Your task to perform on an android device: Go to privacy settings Image 0: 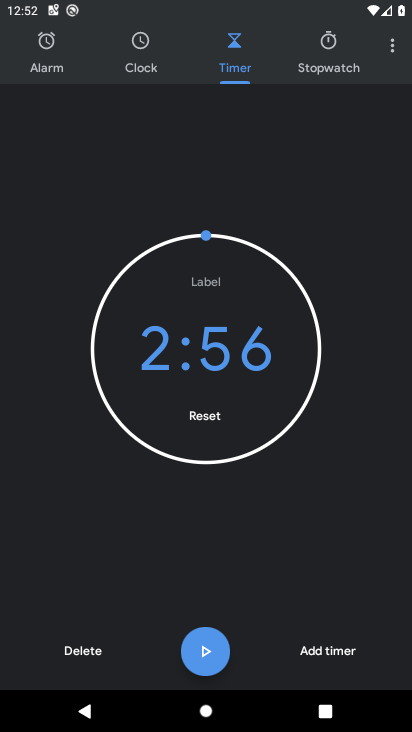
Step 0: click (384, 48)
Your task to perform on an android device: Go to privacy settings Image 1: 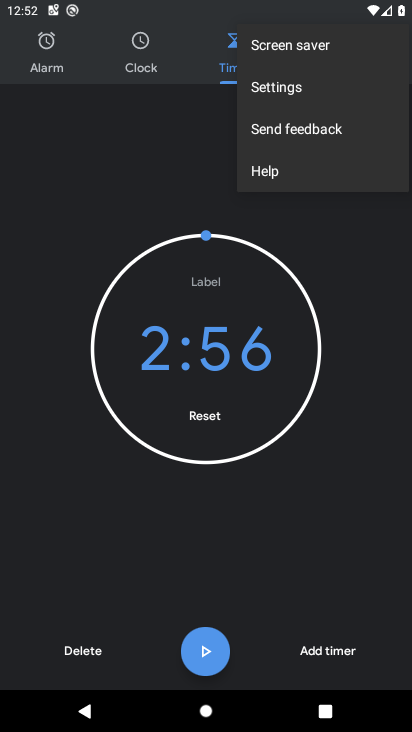
Step 1: press home button
Your task to perform on an android device: Go to privacy settings Image 2: 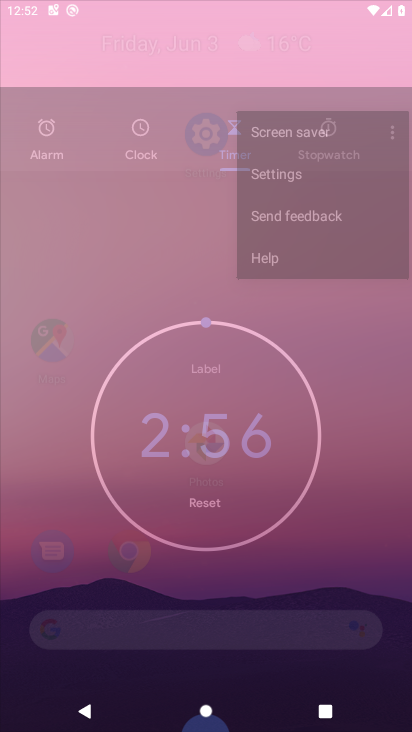
Step 2: drag from (27, 581) to (277, 61)
Your task to perform on an android device: Go to privacy settings Image 3: 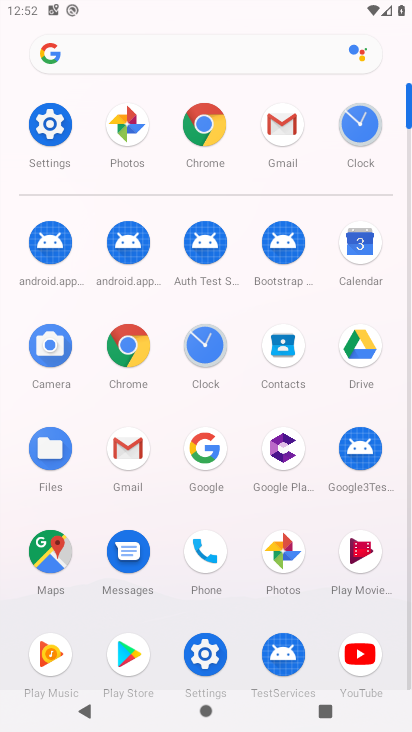
Step 3: click (191, 653)
Your task to perform on an android device: Go to privacy settings Image 4: 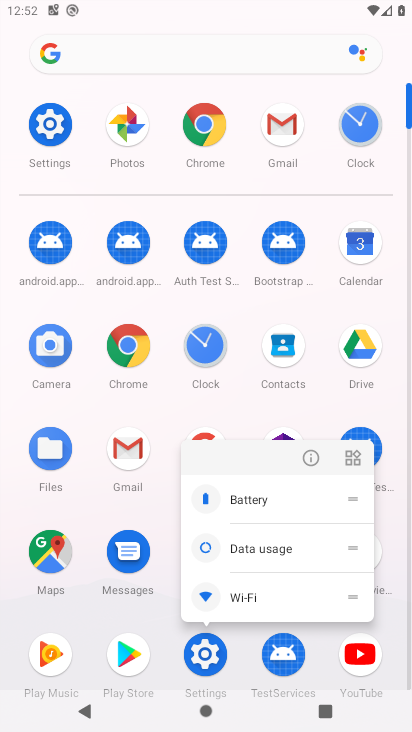
Step 4: click (313, 459)
Your task to perform on an android device: Go to privacy settings Image 5: 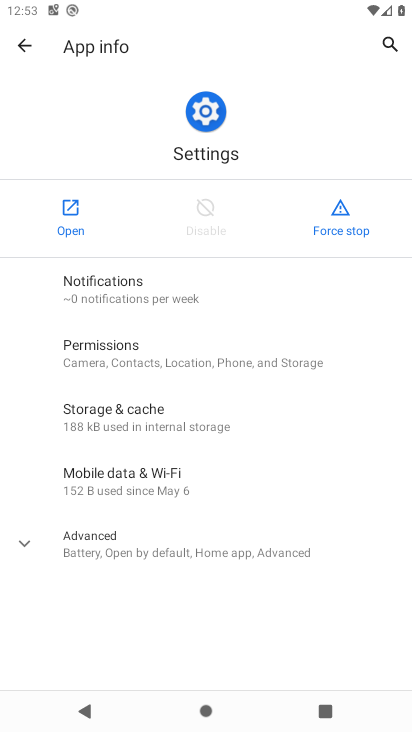
Step 5: click (83, 206)
Your task to perform on an android device: Go to privacy settings Image 6: 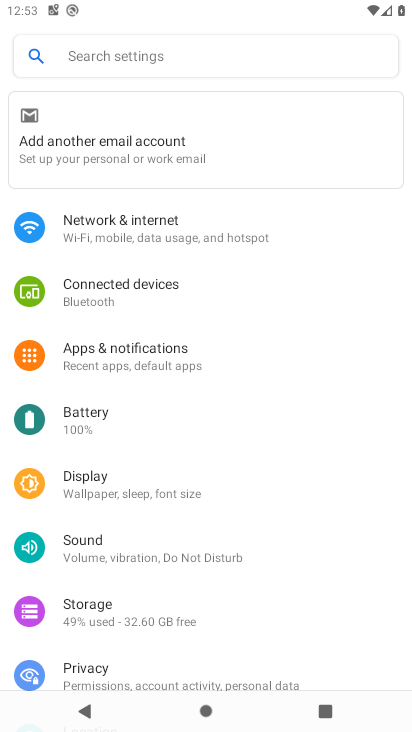
Step 6: drag from (148, 588) to (264, 261)
Your task to perform on an android device: Go to privacy settings Image 7: 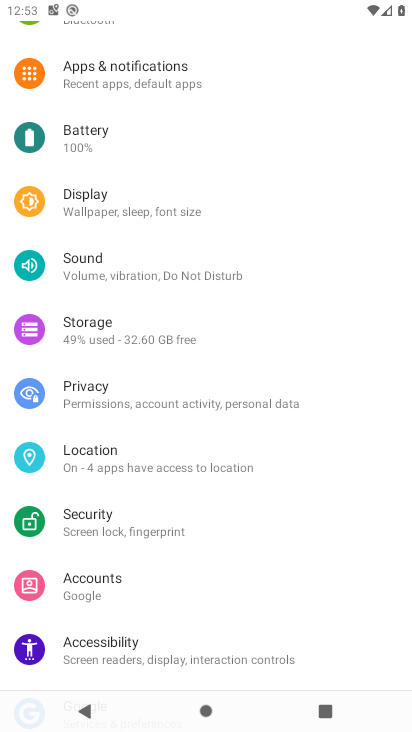
Step 7: click (100, 397)
Your task to perform on an android device: Go to privacy settings Image 8: 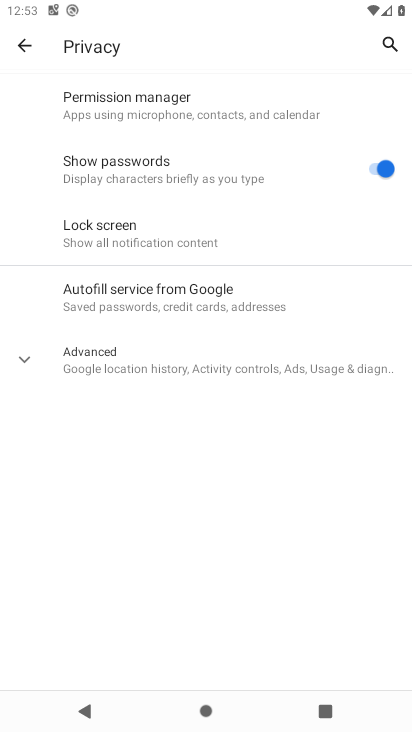
Step 8: task complete